Your task to perform on an android device: turn off improve location accuracy Image 0: 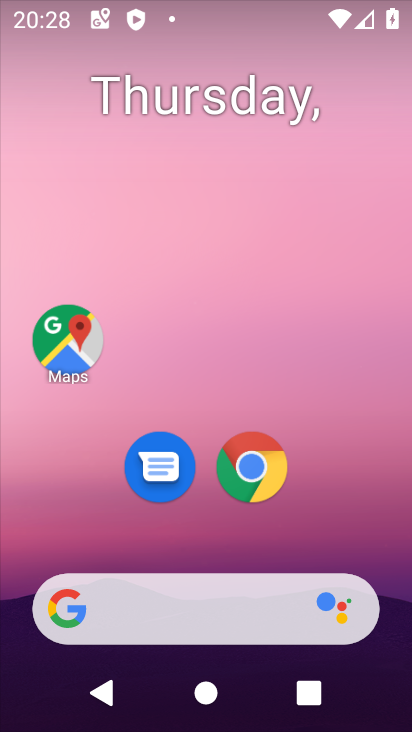
Step 0: drag from (349, 534) to (330, 320)
Your task to perform on an android device: turn off improve location accuracy Image 1: 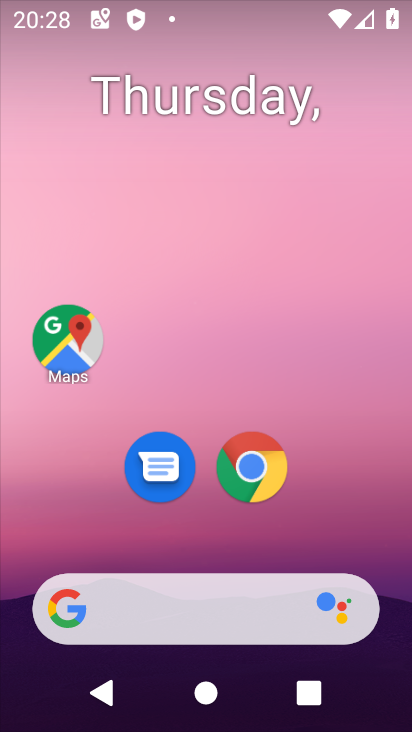
Step 1: drag from (347, 533) to (321, 233)
Your task to perform on an android device: turn off improve location accuracy Image 2: 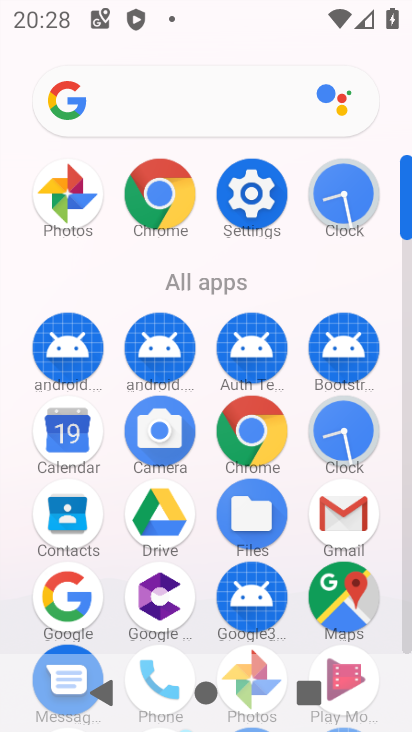
Step 2: click (230, 196)
Your task to perform on an android device: turn off improve location accuracy Image 3: 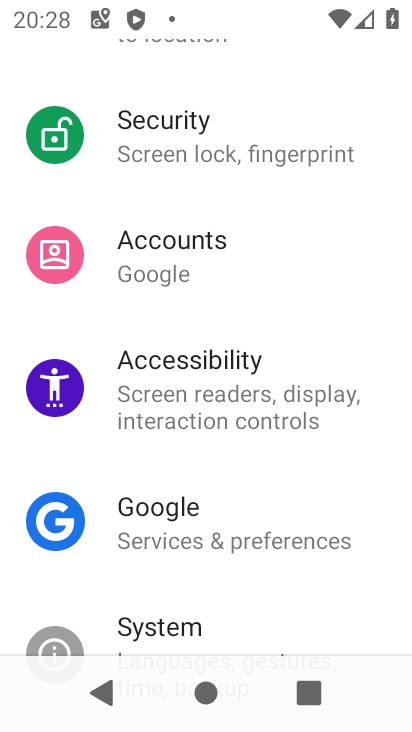
Step 3: drag from (257, 523) to (302, 196)
Your task to perform on an android device: turn off improve location accuracy Image 4: 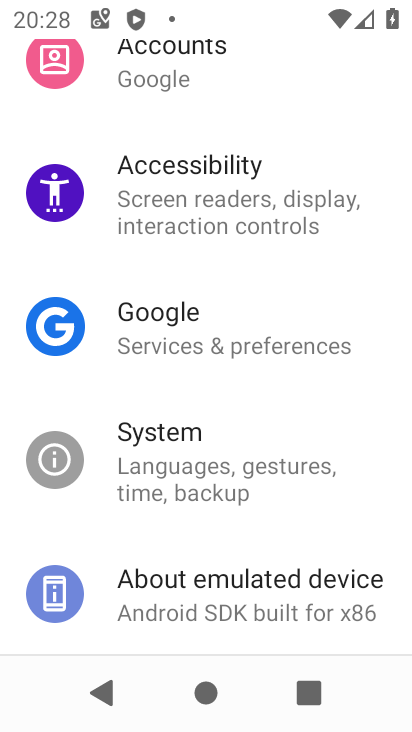
Step 4: drag from (218, 233) to (230, 584)
Your task to perform on an android device: turn off improve location accuracy Image 5: 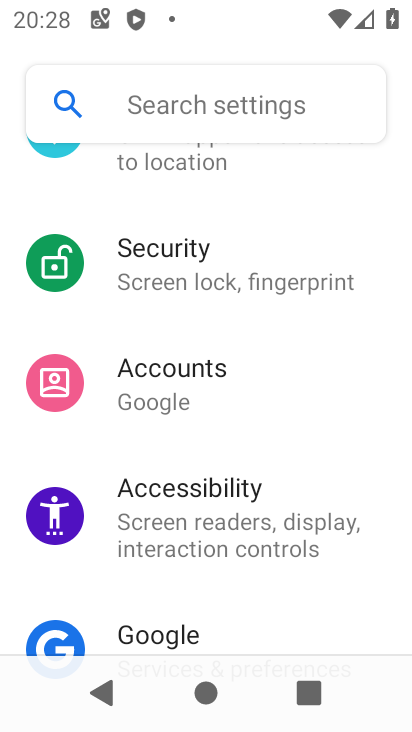
Step 5: drag from (219, 234) to (212, 577)
Your task to perform on an android device: turn off improve location accuracy Image 6: 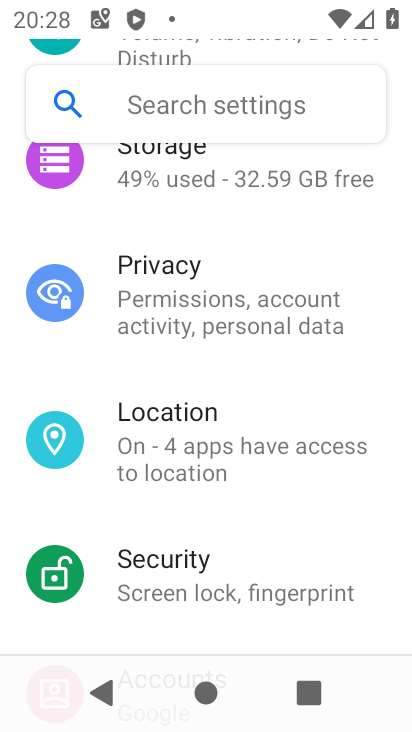
Step 6: click (208, 453)
Your task to perform on an android device: turn off improve location accuracy Image 7: 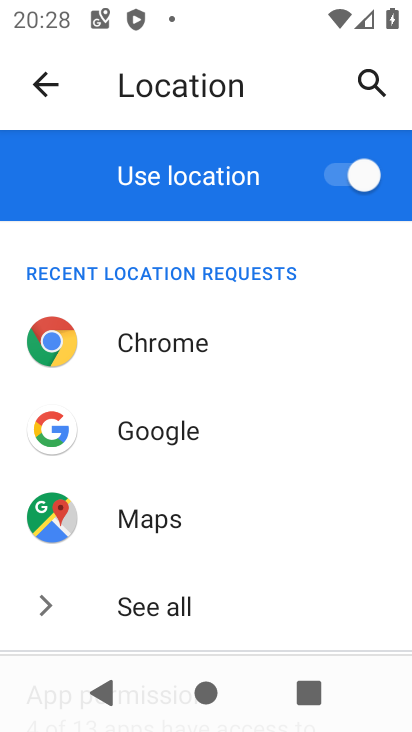
Step 7: drag from (228, 541) to (265, 189)
Your task to perform on an android device: turn off improve location accuracy Image 8: 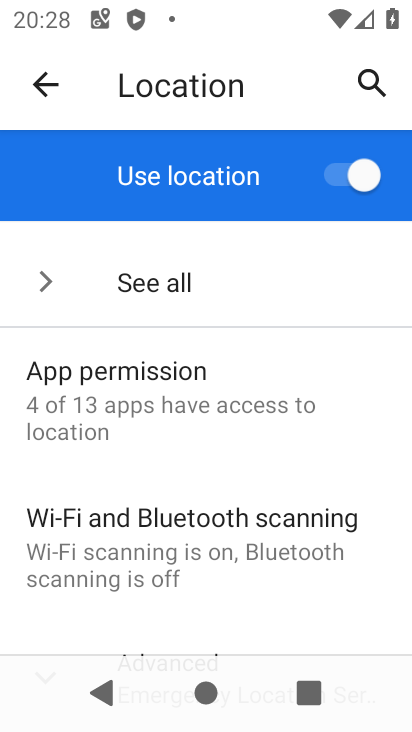
Step 8: drag from (200, 512) to (257, 271)
Your task to perform on an android device: turn off improve location accuracy Image 9: 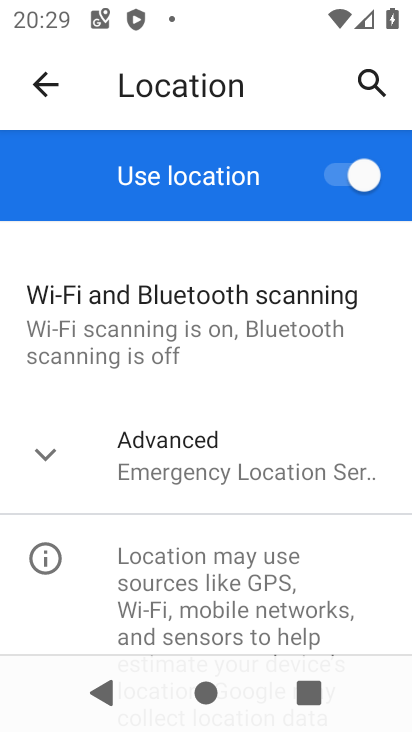
Step 9: click (210, 440)
Your task to perform on an android device: turn off improve location accuracy Image 10: 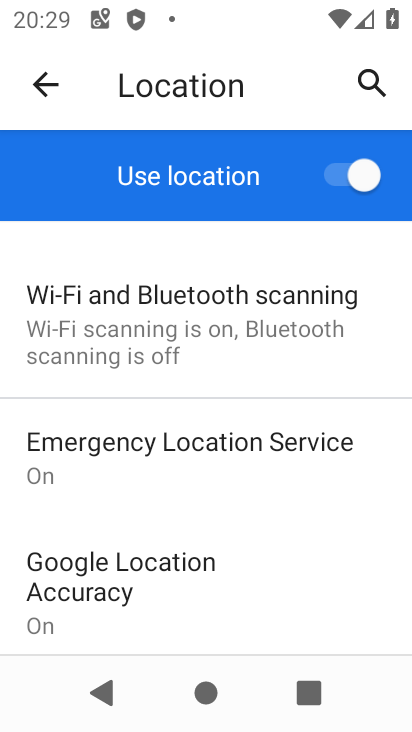
Step 10: click (120, 566)
Your task to perform on an android device: turn off improve location accuracy Image 11: 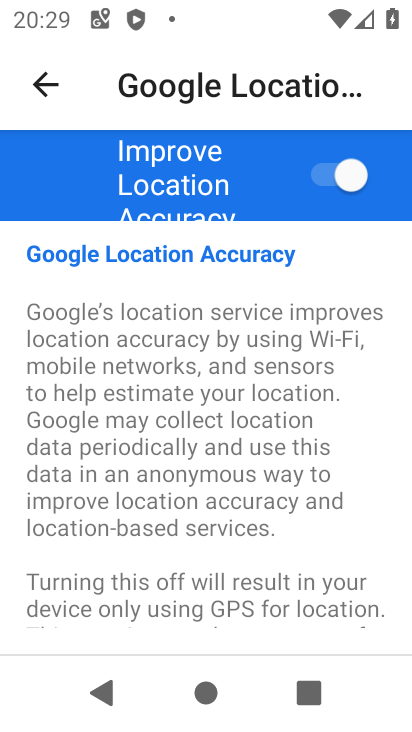
Step 11: click (334, 184)
Your task to perform on an android device: turn off improve location accuracy Image 12: 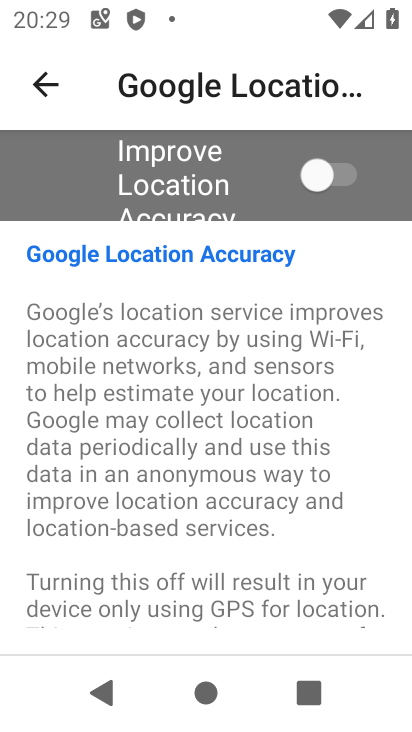
Step 12: task complete